Your task to perform on an android device: turn off sleep mode Image 0: 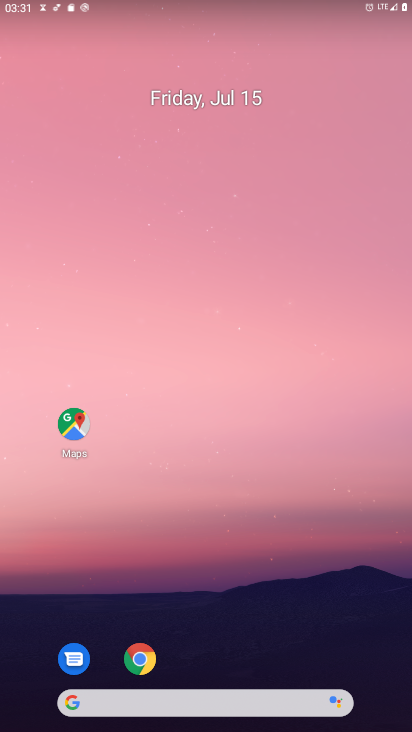
Step 0: drag from (251, 644) to (260, 285)
Your task to perform on an android device: turn off sleep mode Image 1: 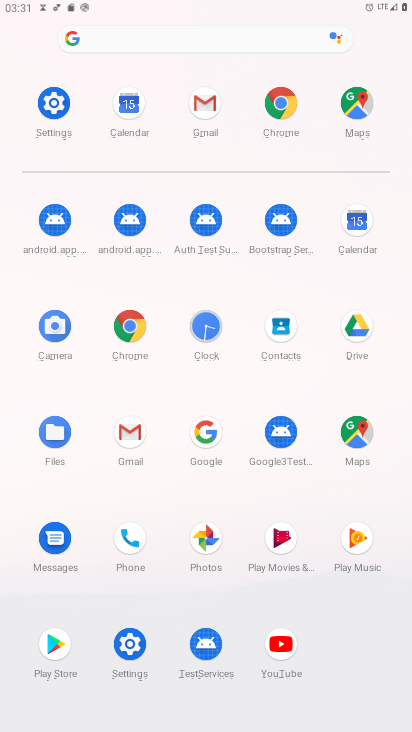
Step 1: click (54, 84)
Your task to perform on an android device: turn off sleep mode Image 2: 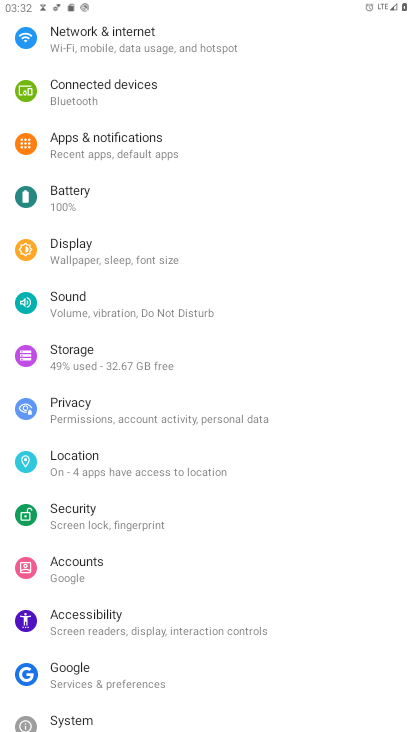
Step 2: task complete